Your task to perform on an android device: open chrome and create a bookmark for the current page Image 0: 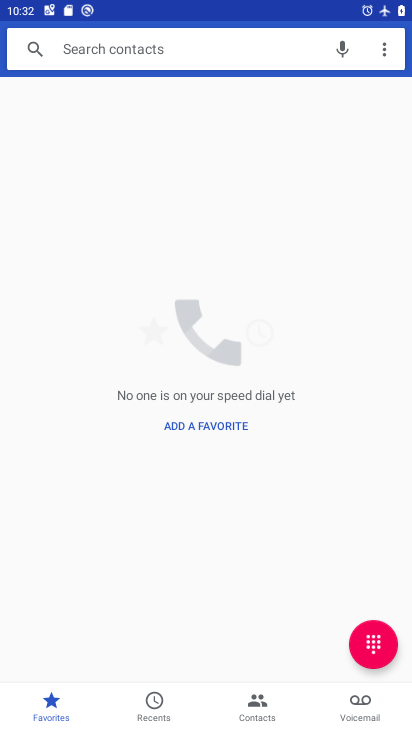
Step 0: press home button
Your task to perform on an android device: open chrome and create a bookmark for the current page Image 1: 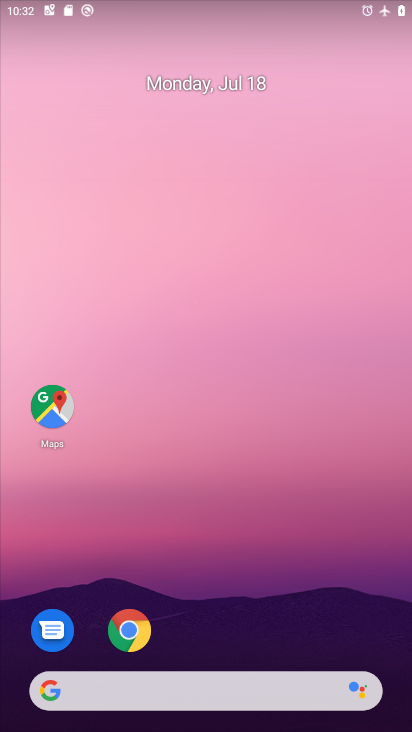
Step 1: click (121, 636)
Your task to perform on an android device: open chrome and create a bookmark for the current page Image 2: 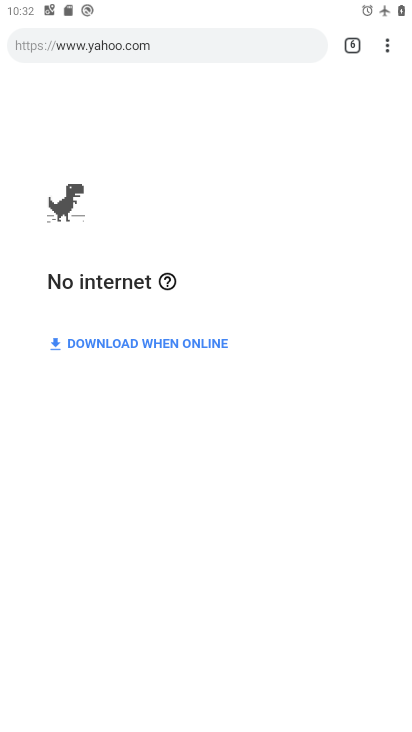
Step 2: click (354, 45)
Your task to perform on an android device: open chrome and create a bookmark for the current page Image 3: 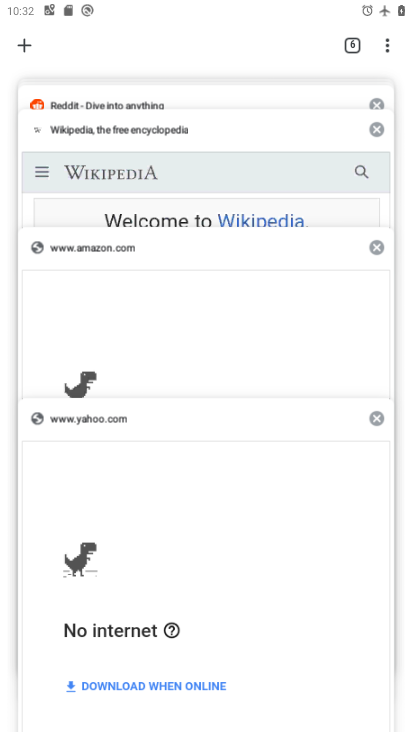
Step 3: click (59, 97)
Your task to perform on an android device: open chrome and create a bookmark for the current page Image 4: 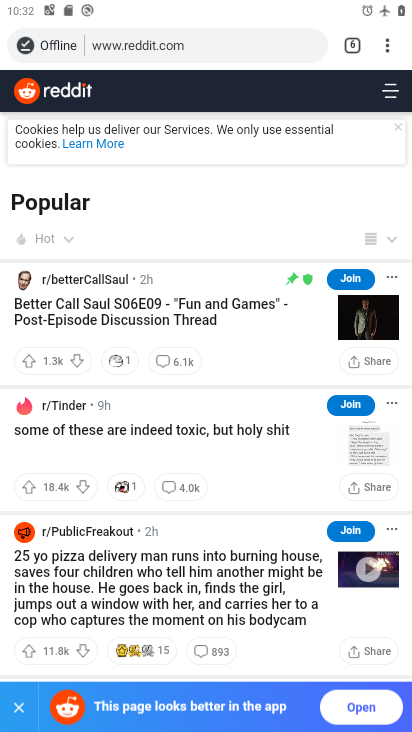
Step 4: click (381, 40)
Your task to perform on an android device: open chrome and create a bookmark for the current page Image 5: 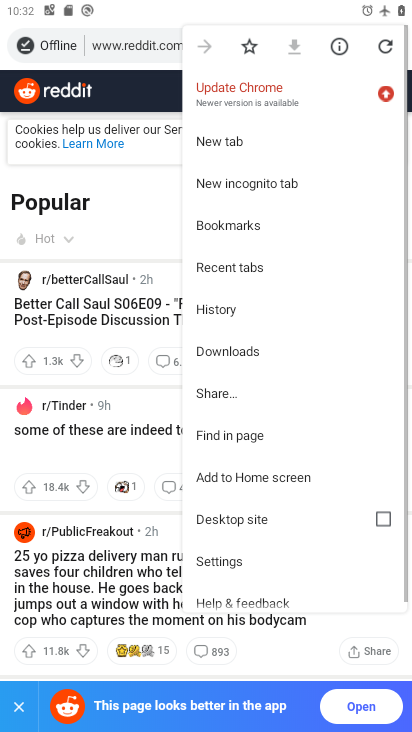
Step 5: click (245, 45)
Your task to perform on an android device: open chrome and create a bookmark for the current page Image 6: 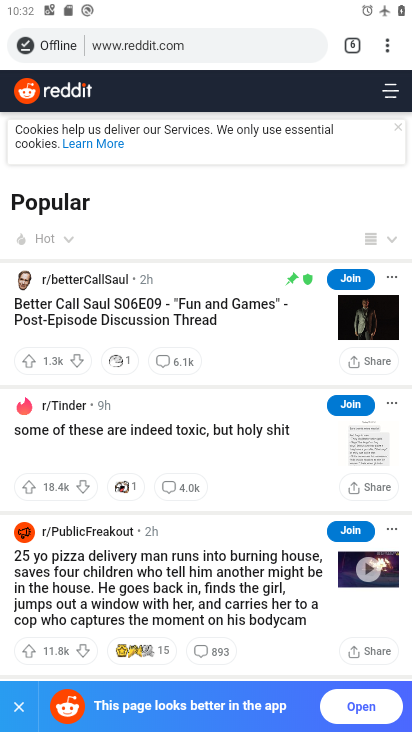
Step 6: task complete